Your task to perform on an android device: turn pop-ups on in chrome Image 0: 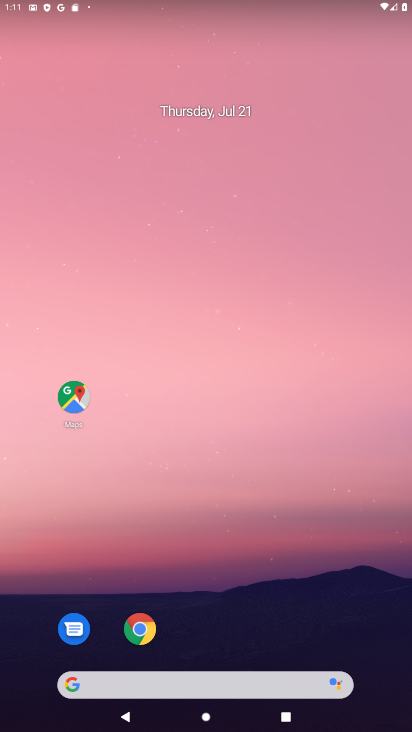
Step 0: click (139, 634)
Your task to perform on an android device: turn pop-ups on in chrome Image 1: 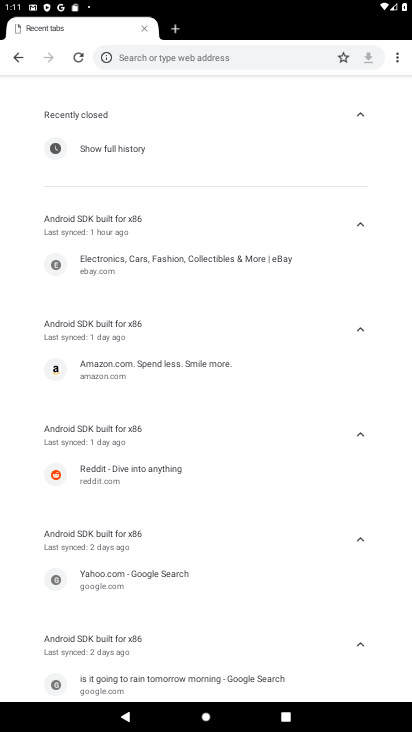
Step 1: click (394, 56)
Your task to perform on an android device: turn pop-ups on in chrome Image 2: 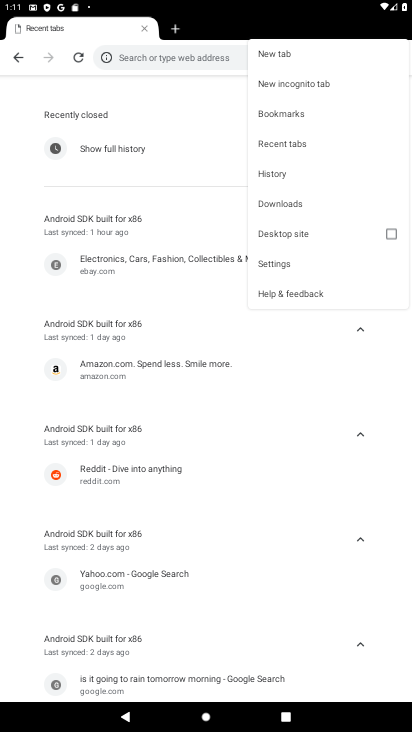
Step 2: click (311, 257)
Your task to perform on an android device: turn pop-ups on in chrome Image 3: 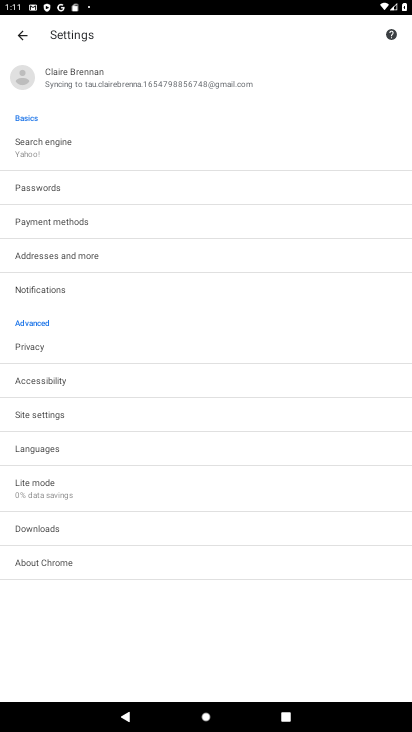
Step 3: click (25, 413)
Your task to perform on an android device: turn pop-ups on in chrome Image 4: 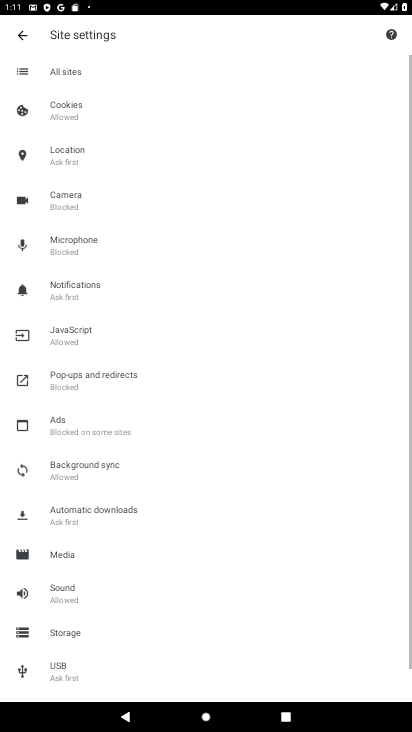
Step 4: click (87, 375)
Your task to perform on an android device: turn pop-ups on in chrome Image 5: 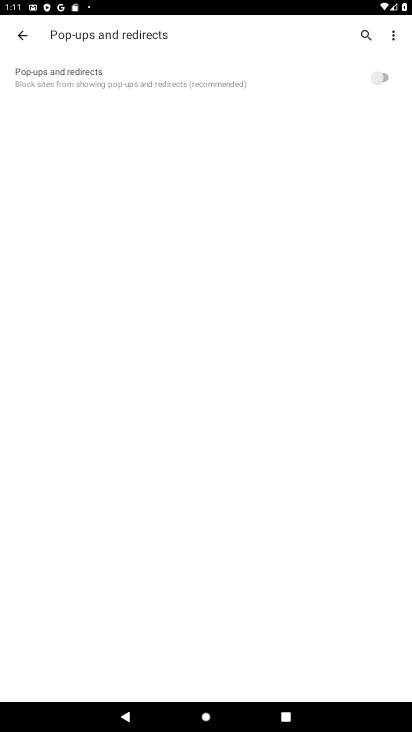
Step 5: click (383, 79)
Your task to perform on an android device: turn pop-ups on in chrome Image 6: 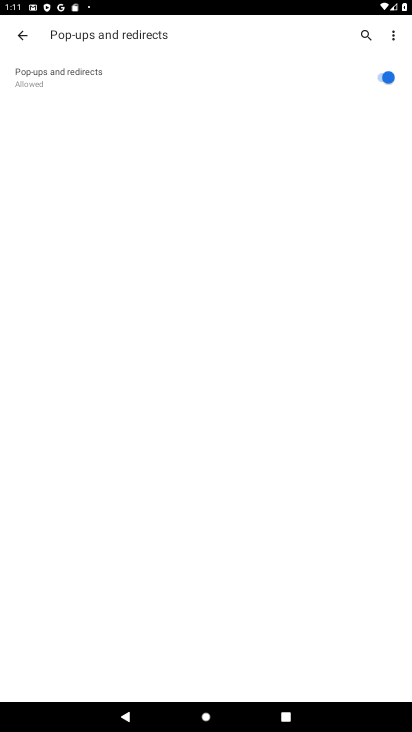
Step 6: task complete